Your task to perform on an android device: clear history in the chrome app Image 0: 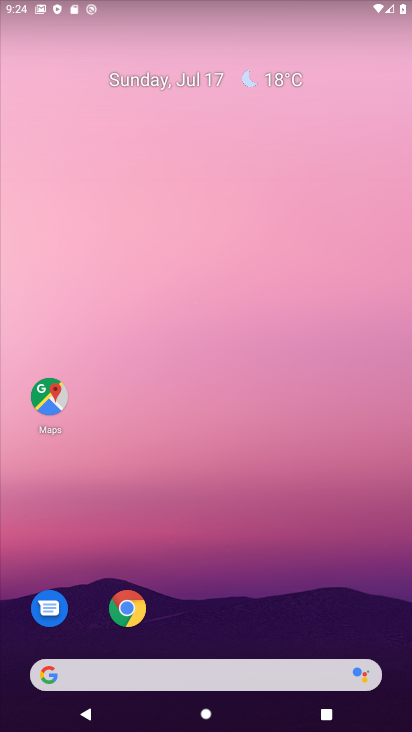
Step 0: drag from (261, 563) to (316, 220)
Your task to perform on an android device: clear history in the chrome app Image 1: 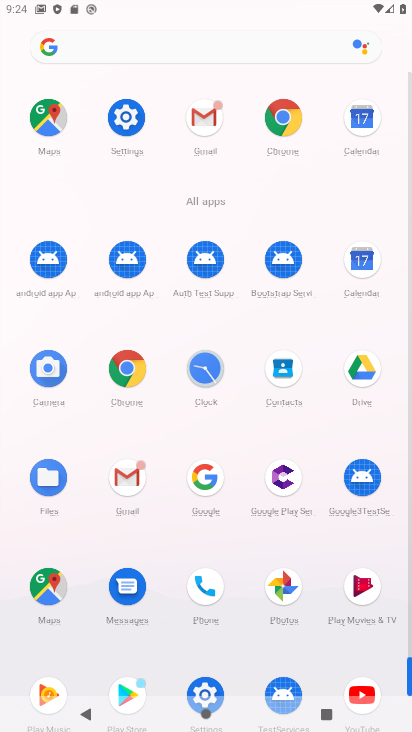
Step 1: click (127, 369)
Your task to perform on an android device: clear history in the chrome app Image 2: 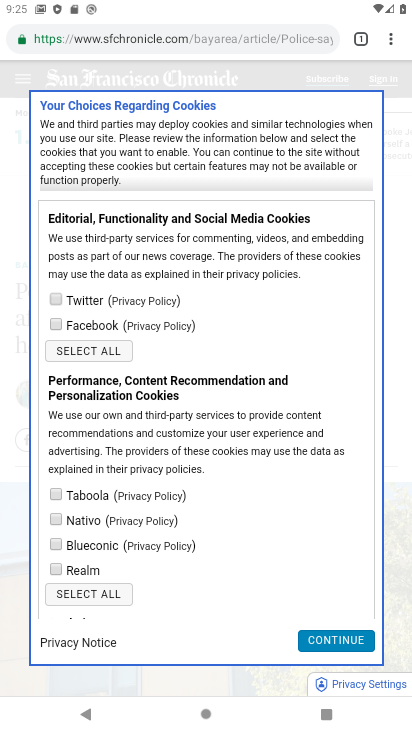
Step 2: click (340, 645)
Your task to perform on an android device: clear history in the chrome app Image 3: 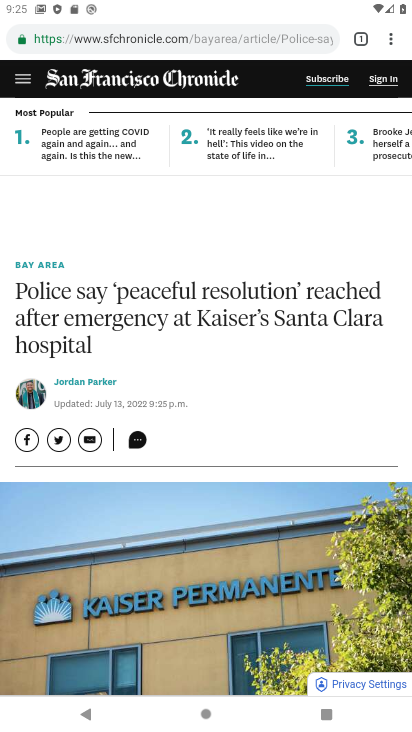
Step 3: click (388, 35)
Your task to perform on an android device: clear history in the chrome app Image 4: 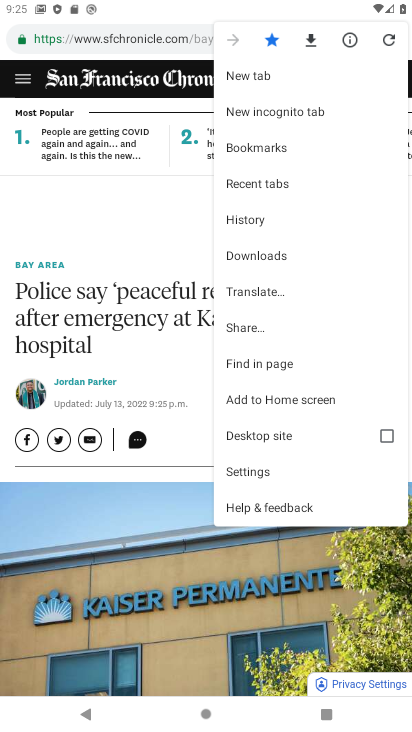
Step 4: click (245, 228)
Your task to perform on an android device: clear history in the chrome app Image 5: 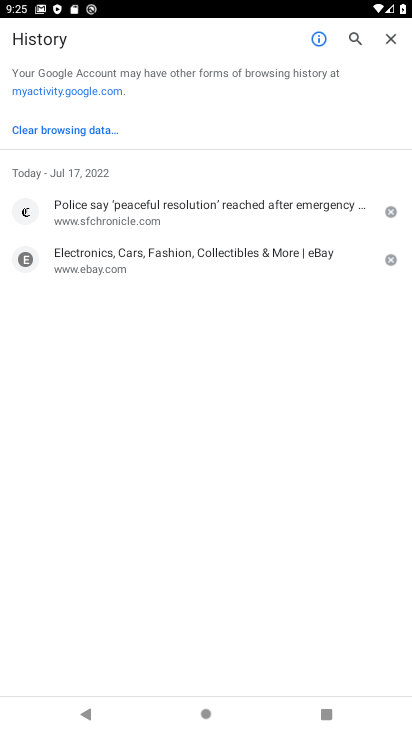
Step 5: click (60, 125)
Your task to perform on an android device: clear history in the chrome app Image 6: 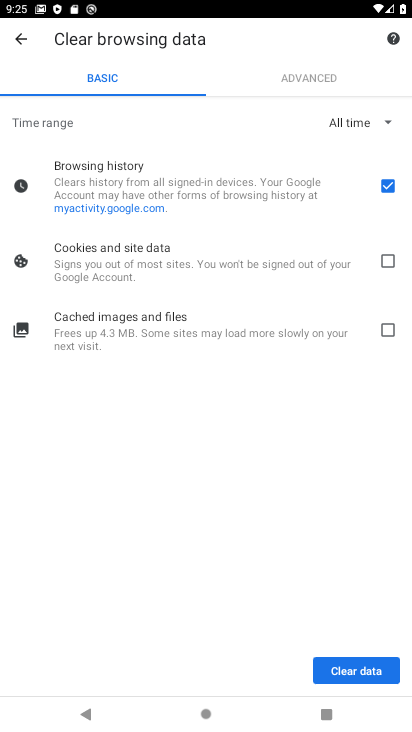
Step 6: click (349, 673)
Your task to perform on an android device: clear history in the chrome app Image 7: 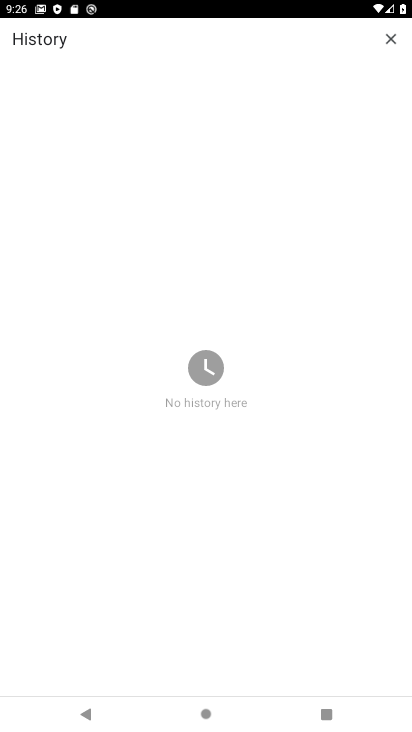
Step 7: task complete